Your task to perform on an android device: turn pop-ups off in chrome Image 0: 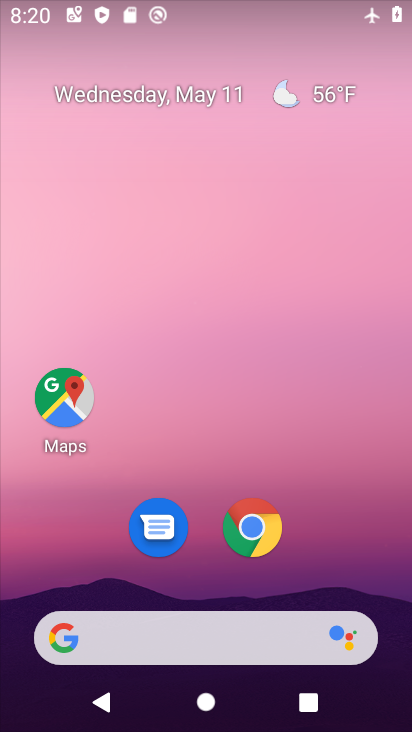
Step 0: click (262, 540)
Your task to perform on an android device: turn pop-ups off in chrome Image 1: 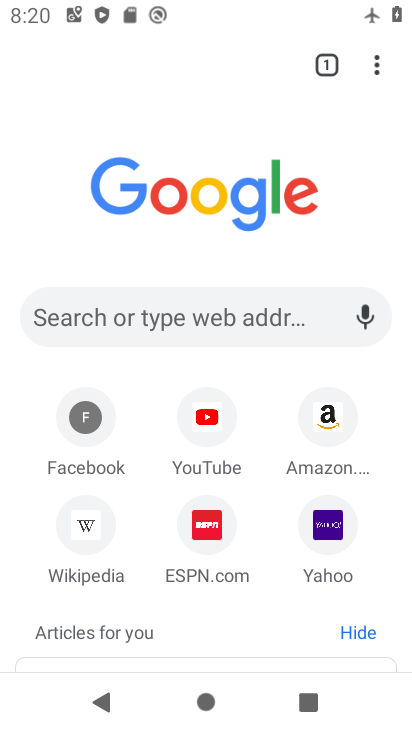
Step 1: drag from (375, 77) to (251, 549)
Your task to perform on an android device: turn pop-ups off in chrome Image 2: 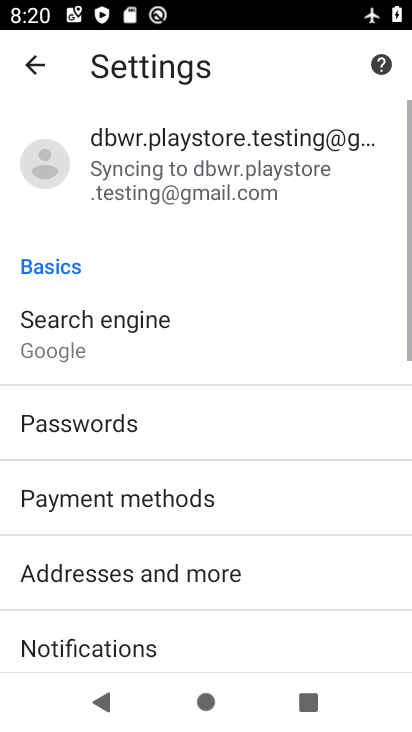
Step 2: drag from (237, 621) to (308, 234)
Your task to perform on an android device: turn pop-ups off in chrome Image 3: 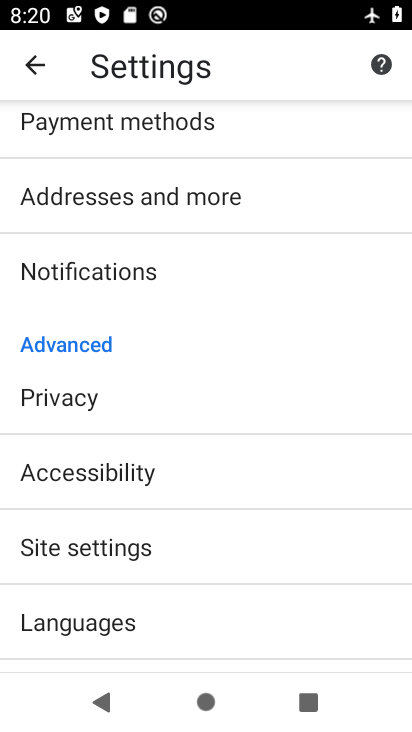
Step 3: click (197, 558)
Your task to perform on an android device: turn pop-ups off in chrome Image 4: 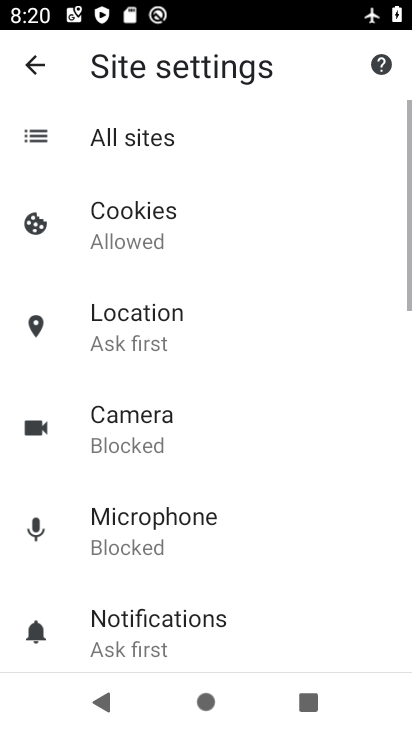
Step 4: drag from (188, 612) to (277, 256)
Your task to perform on an android device: turn pop-ups off in chrome Image 5: 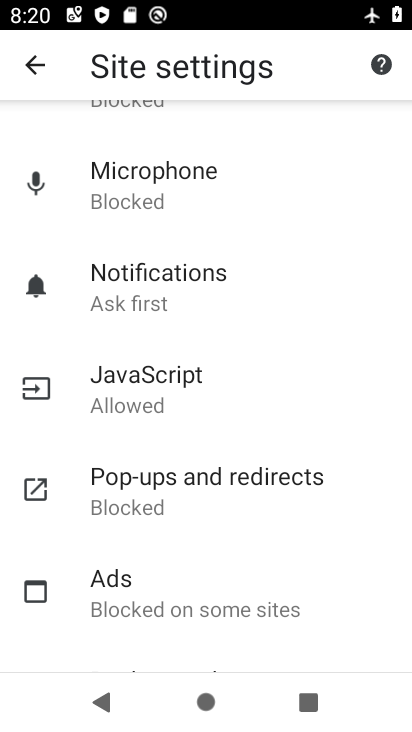
Step 5: click (262, 498)
Your task to perform on an android device: turn pop-ups off in chrome Image 6: 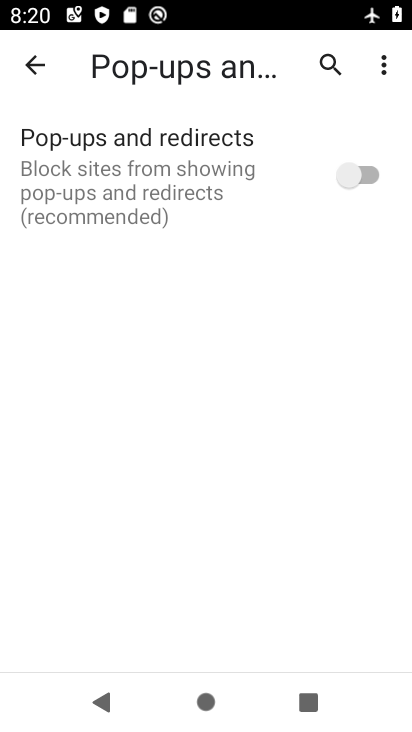
Step 6: task complete